Your task to perform on an android device: open chrome and create a bookmark for the current page Image 0: 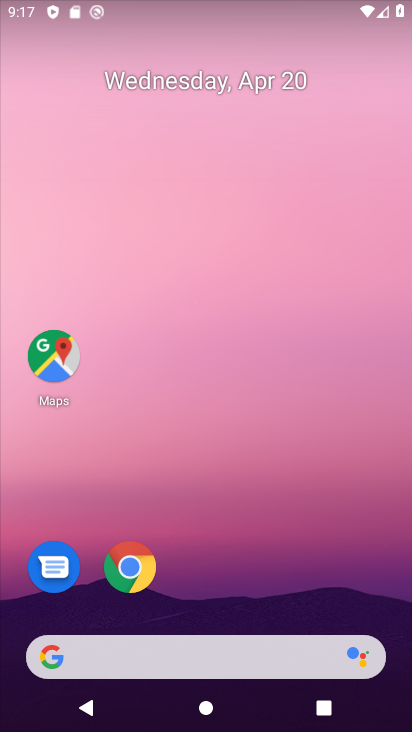
Step 0: click (127, 570)
Your task to perform on an android device: open chrome and create a bookmark for the current page Image 1: 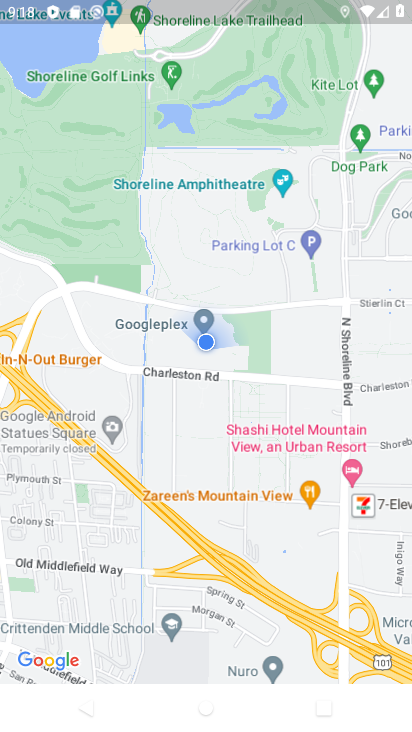
Step 1: press back button
Your task to perform on an android device: open chrome and create a bookmark for the current page Image 2: 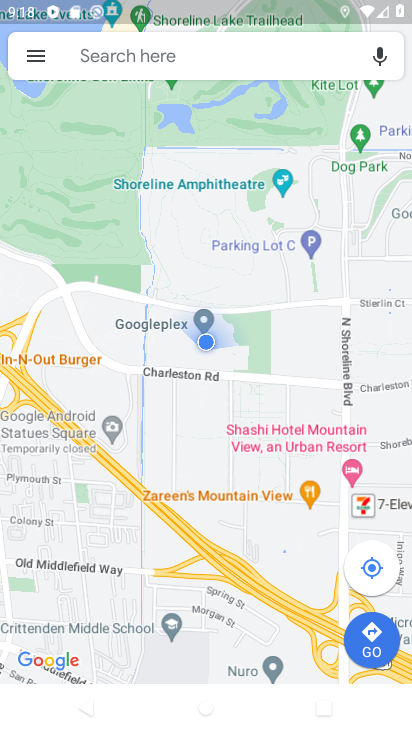
Step 2: press back button
Your task to perform on an android device: open chrome and create a bookmark for the current page Image 3: 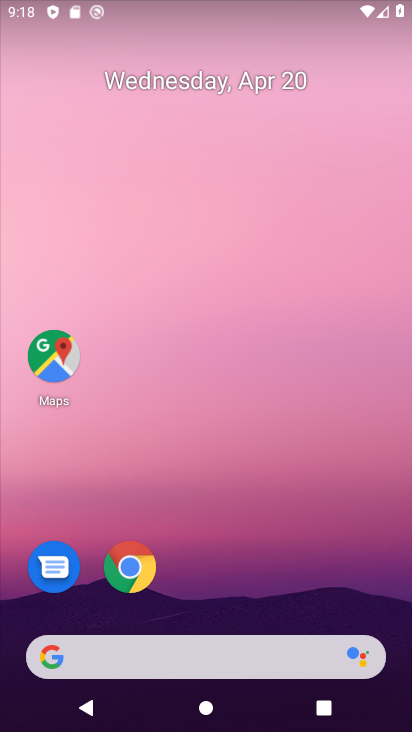
Step 3: press home button
Your task to perform on an android device: open chrome and create a bookmark for the current page Image 4: 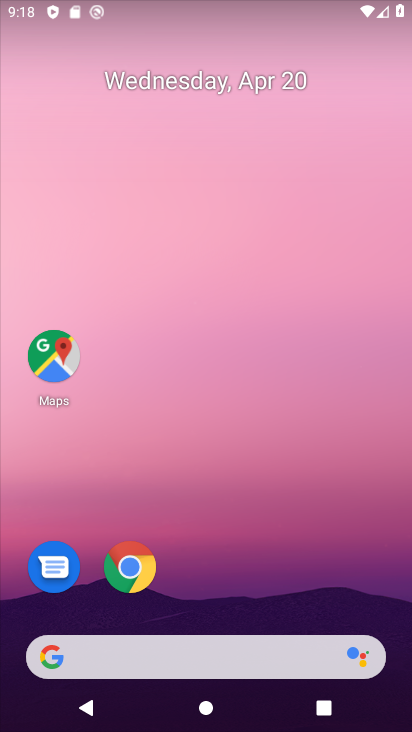
Step 4: click (131, 556)
Your task to perform on an android device: open chrome and create a bookmark for the current page Image 5: 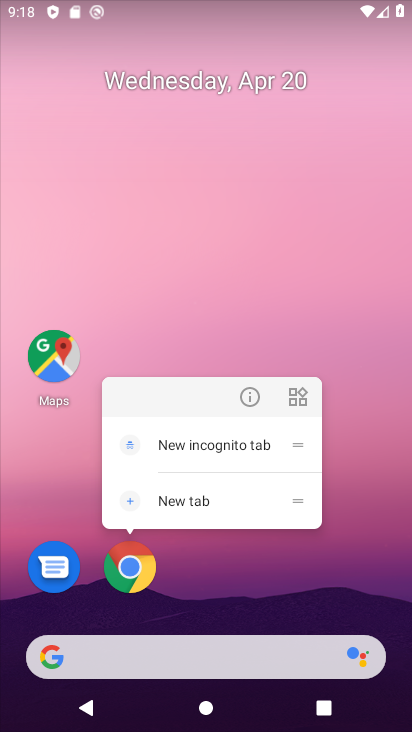
Step 5: click (124, 571)
Your task to perform on an android device: open chrome and create a bookmark for the current page Image 6: 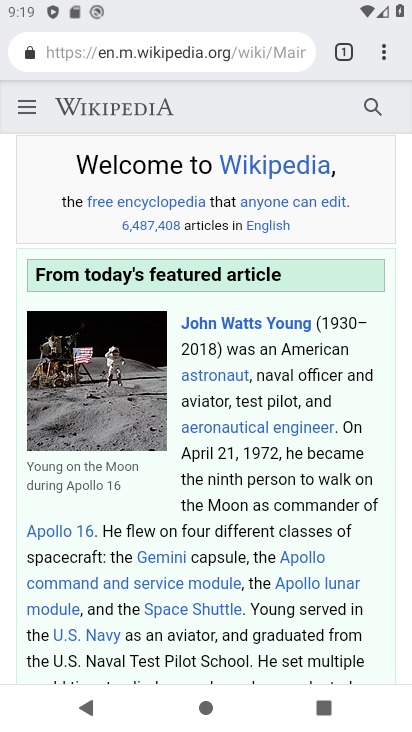
Step 6: click (344, 44)
Your task to perform on an android device: open chrome and create a bookmark for the current page Image 7: 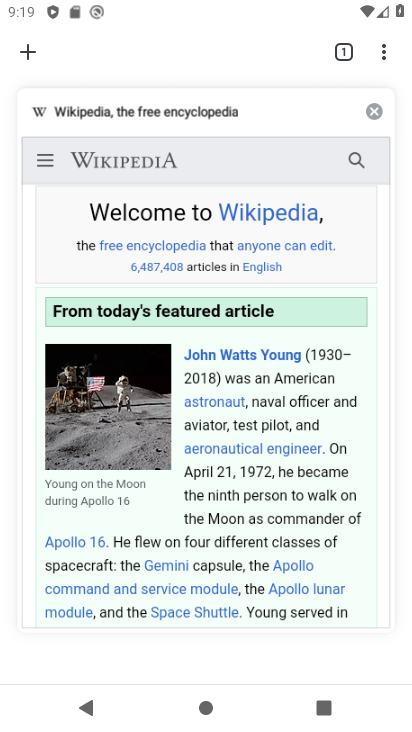
Step 7: click (35, 44)
Your task to perform on an android device: open chrome and create a bookmark for the current page Image 8: 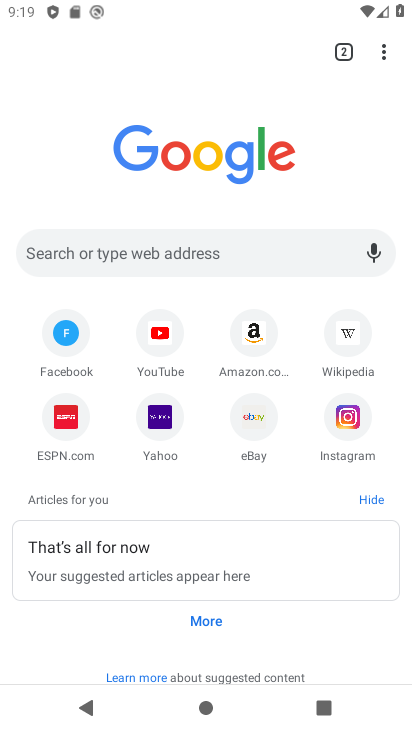
Step 8: click (125, 257)
Your task to perform on an android device: open chrome and create a bookmark for the current page Image 9: 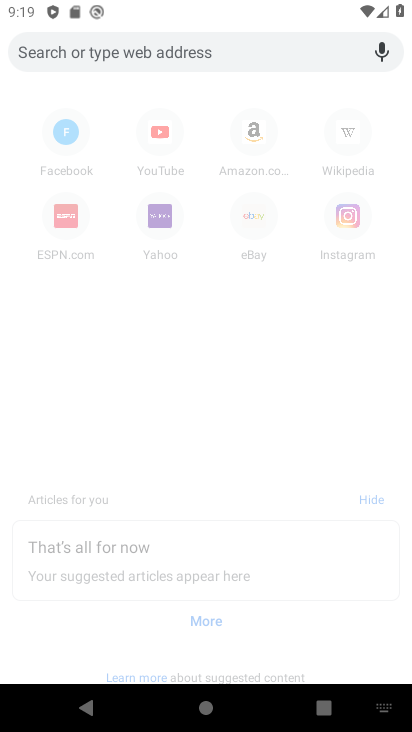
Step 9: type "tesla"
Your task to perform on an android device: open chrome and create a bookmark for the current page Image 10: 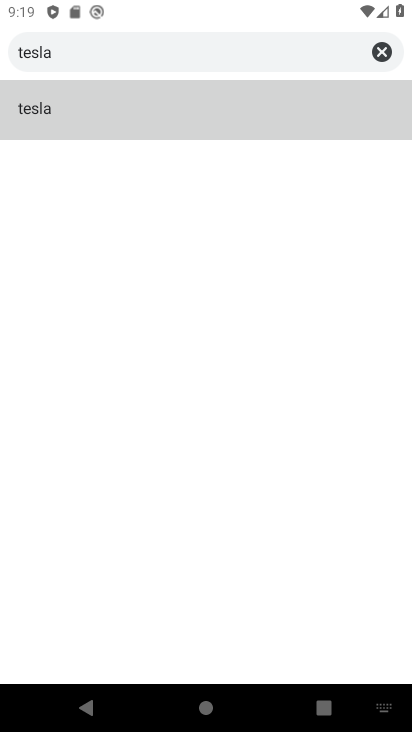
Step 10: click (65, 114)
Your task to perform on an android device: open chrome and create a bookmark for the current page Image 11: 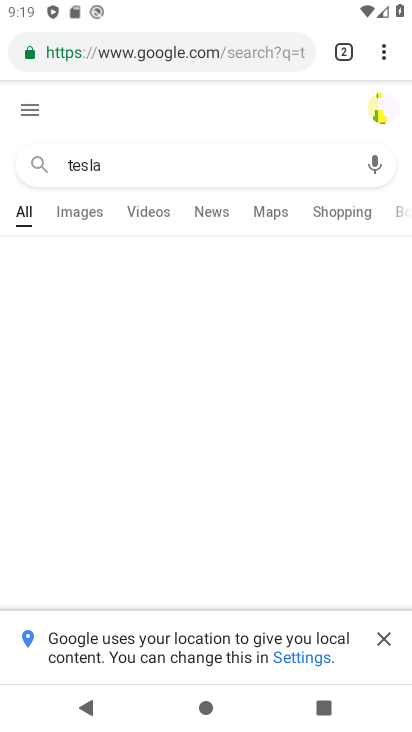
Step 11: press back button
Your task to perform on an android device: open chrome and create a bookmark for the current page Image 12: 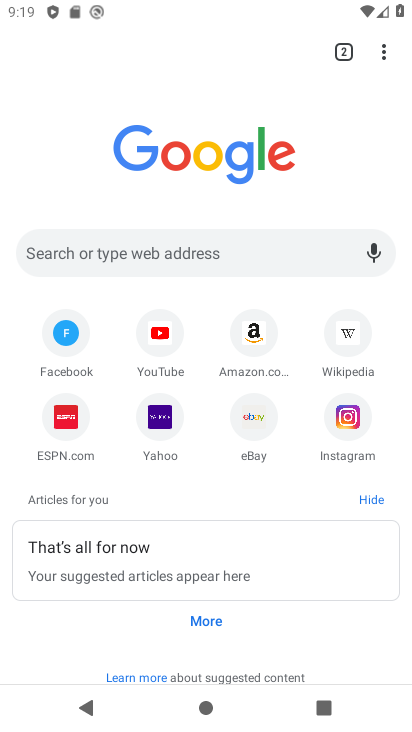
Step 12: click (380, 41)
Your task to perform on an android device: open chrome and create a bookmark for the current page Image 13: 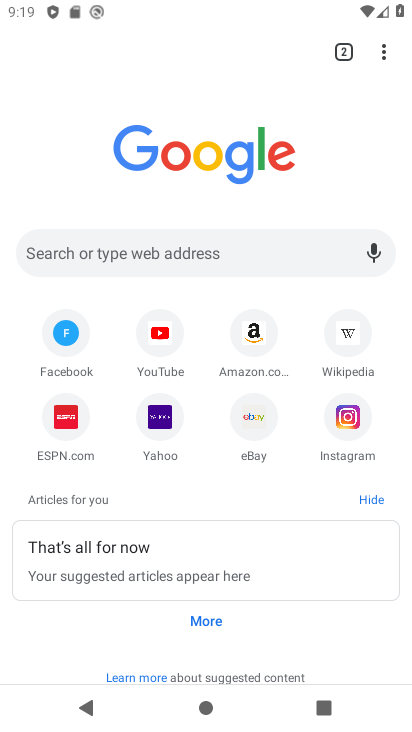
Step 13: task complete